Your task to perform on an android device: What's the price of the EGO 14-in 56-Volt Brushless Cordless Chainsaw? Image 0: 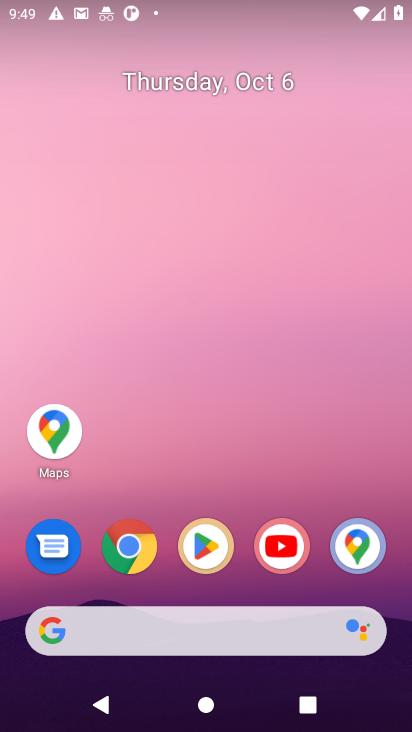
Step 0: click (126, 543)
Your task to perform on an android device: What's the price of the EGO 14-in 56-Volt Brushless Cordless Chainsaw? Image 1: 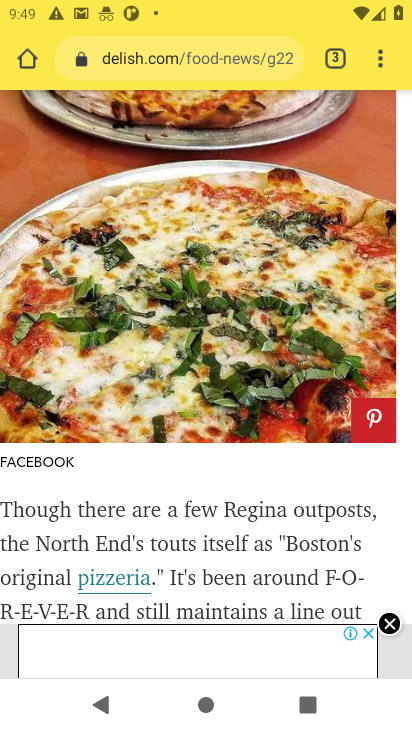
Step 1: click (24, 54)
Your task to perform on an android device: What's the price of the EGO 14-in 56-Volt Brushless Cordless Chainsaw? Image 2: 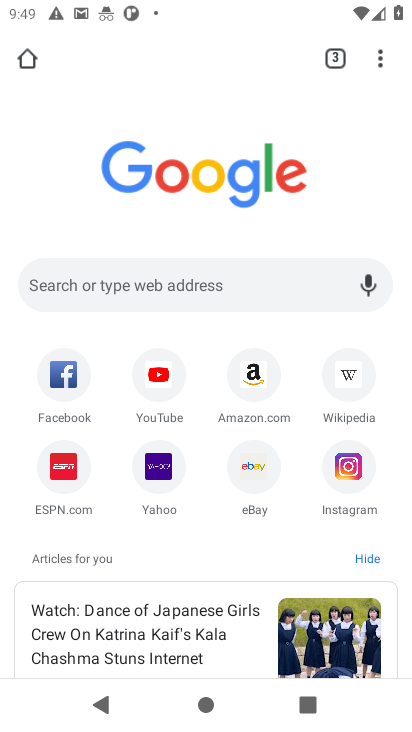
Step 2: click (98, 287)
Your task to perform on an android device: What's the price of the EGO 14-in 56-Volt Brushless Cordless Chainsaw? Image 3: 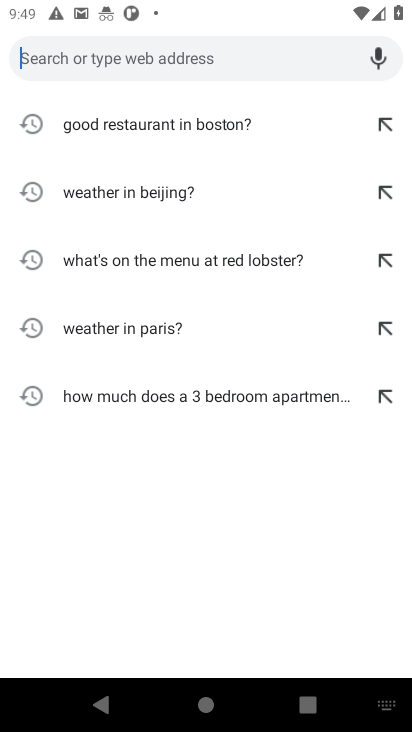
Step 3: type "What's the price of the EGO 14-in 56-Volt Brushless Cordless Chainsaw?"
Your task to perform on an android device: What's the price of the EGO 14-in 56-Volt Brushless Cordless Chainsaw? Image 4: 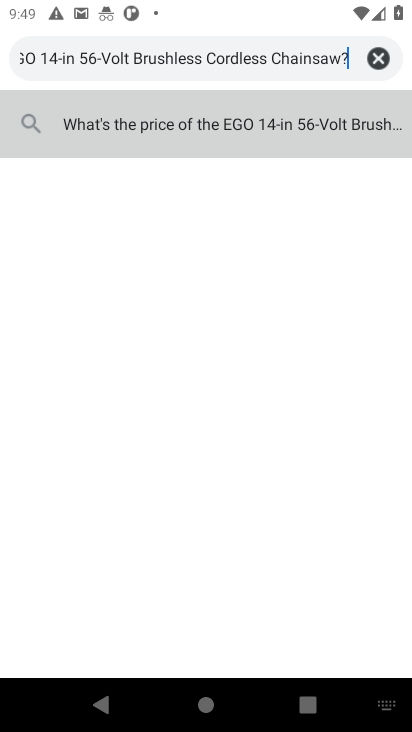
Step 4: click (132, 127)
Your task to perform on an android device: What's the price of the EGO 14-in 56-Volt Brushless Cordless Chainsaw? Image 5: 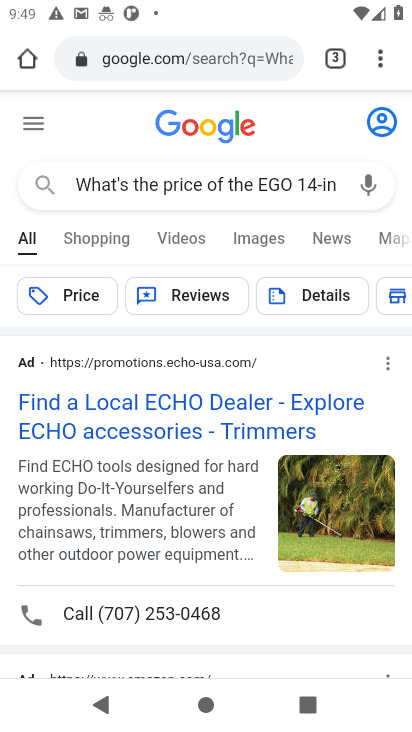
Step 5: drag from (124, 527) to (149, 129)
Your task to perform on an android device: What's the price of the EGO 14-in 56-Volt Brushless Cordless Chainsaw? Image 6: 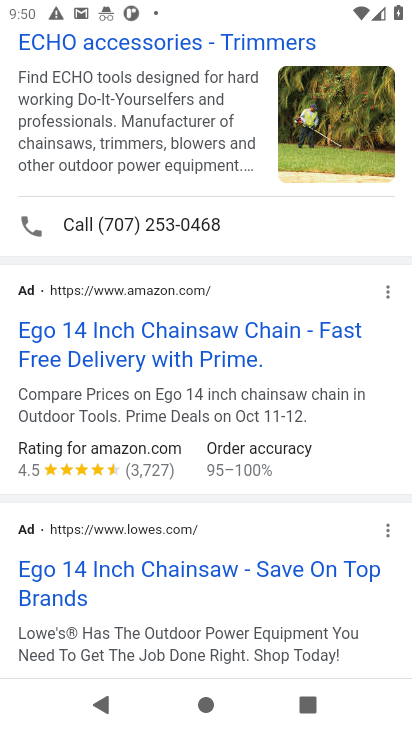
Step 6: click (98, 318)
Your task to perform on an android device: What's the price of the EGO 14-in 56-Volt Brushless Cordless Chainsaw? Image 7: 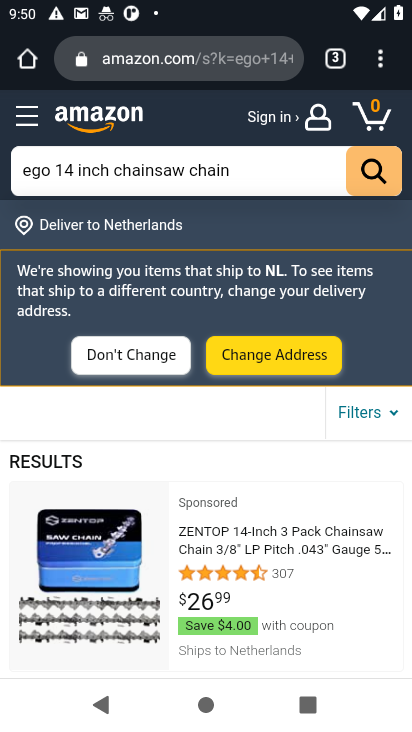
Step 7: drag from (218, 528) to (200, 304)
Your task to perform on an android device: What's the price of the EGO 14-in 56-Volt Brushless Cordless Chainsaw? Image 8: 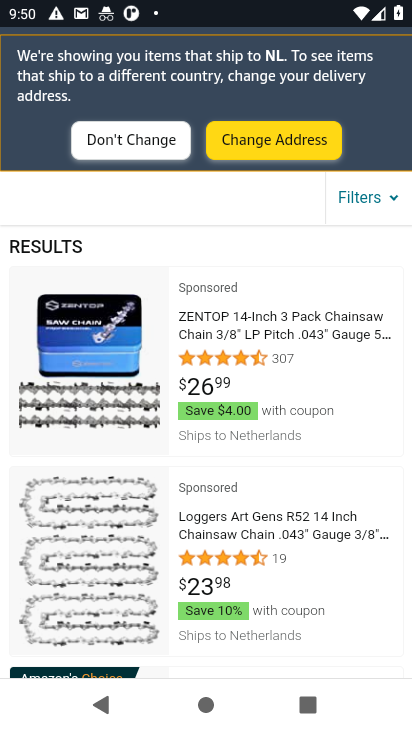
Step 8: drag from (293, 535) to (302, 252)
Your task to perform on an android device: What's the price of the EGO 14-in 56-Volt Brushless Cordless Chainsaw? Image 9: 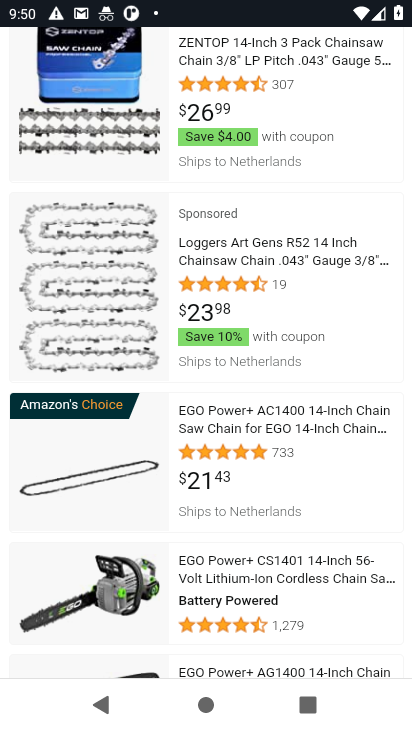
Step 9: drag from (304, 535) to (304, 372)
Your task to perform on an android device: What's the price of the EGO 14-in 56-Volt Brushless Cordless Chainsaw? Image 10: 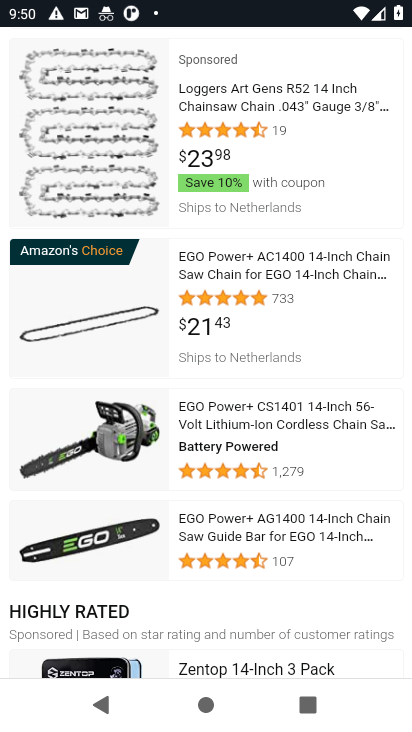
Step 10: drag from (295, 528) to (258, 210)
Your task to perform on an android device: What's the price of the EGO 14-in 56-Volt Brushless Cordless Chainsaw? Image 11: 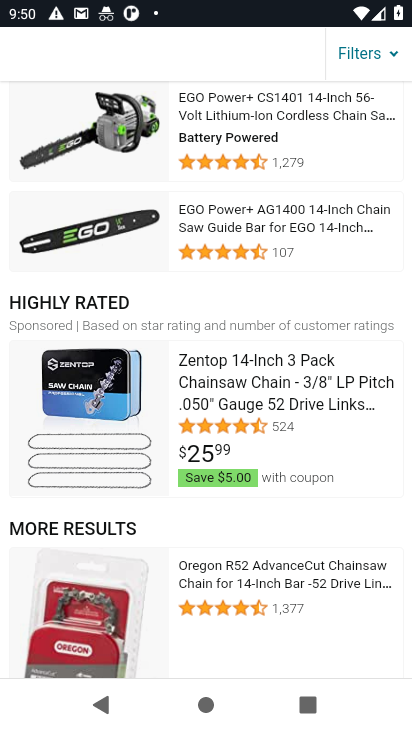
Step 11: drag from (282, 402) to (263, 478)
Your task to perform on an android device: What's the price of the EGO 14-in 56-Volt Brushless Cordless Chainsaw? Image 12: 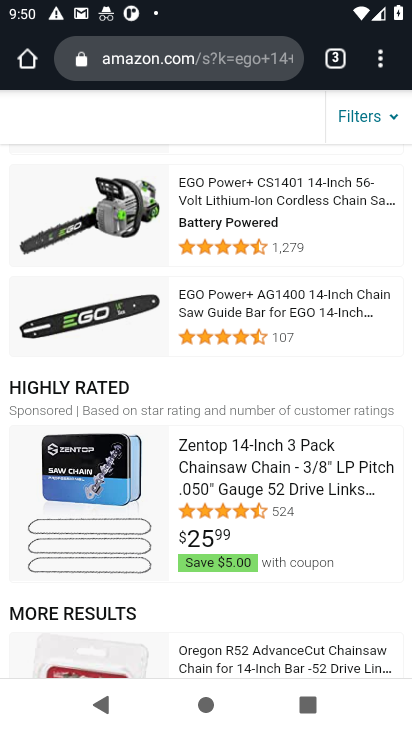
Step 12: drag from (289, 228) to (286, 419)
Your task to perform on an android device: What's the price of the EGO 14-in 56-Volt Brushless Cordless Chainsaw? Image 13: 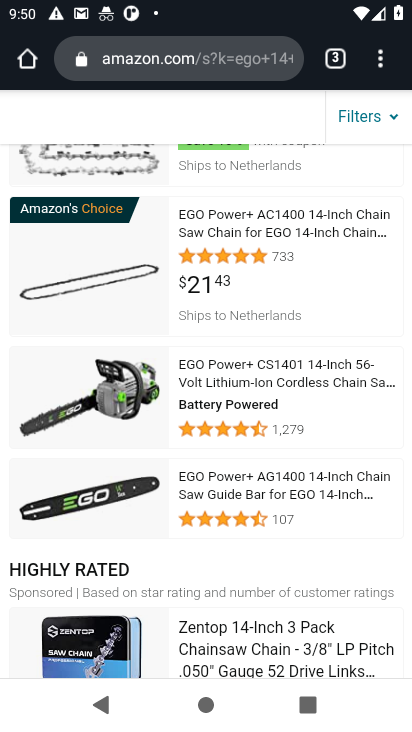
Step 13: click (216, 379)
Your task to perform on an android device: What's the price of the EGO 14-in 56-Volt Brushless Cordless Chainsaw? Image 14: 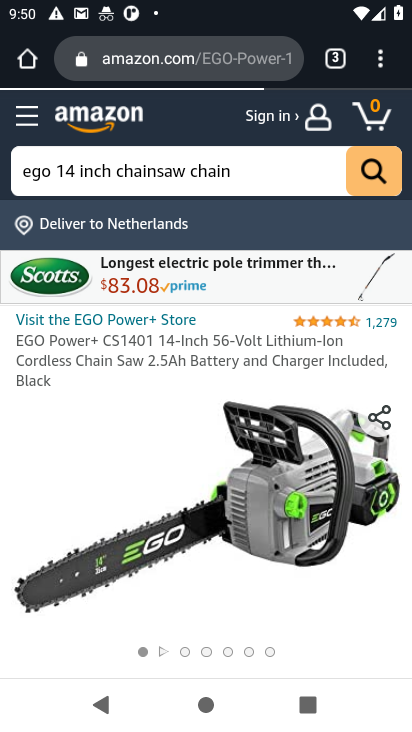
Step 14: task complete